Your task to perform on an android device: turn off priority inbox in the gmail app Image 0: 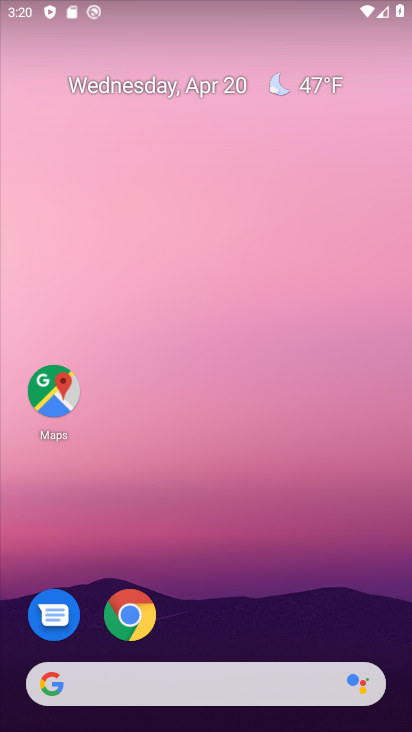
Step 0: drag from (219, 617) to (300, 71)
Your task to perform on an android device: turn off priority inbox in the gmail app Image 1: 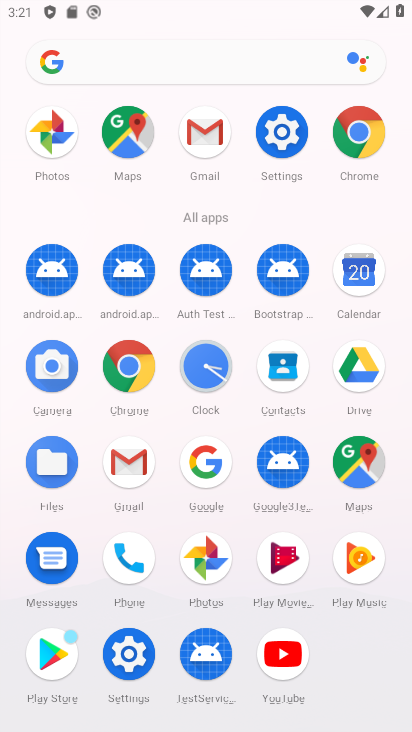
Step 1: click (204, 125)
Your task to perform on an android device: turn off priority inbox in the gmail app Image 2: 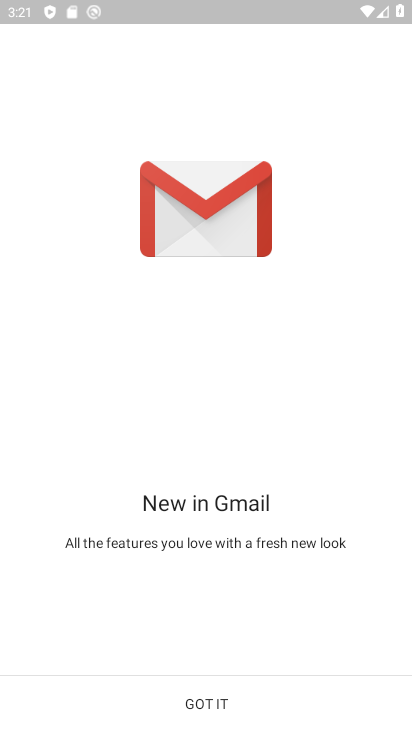
Step 2: click (213, 709)
Your task to perform on an android device: turn off priority inbox in the gmail app Image 3: 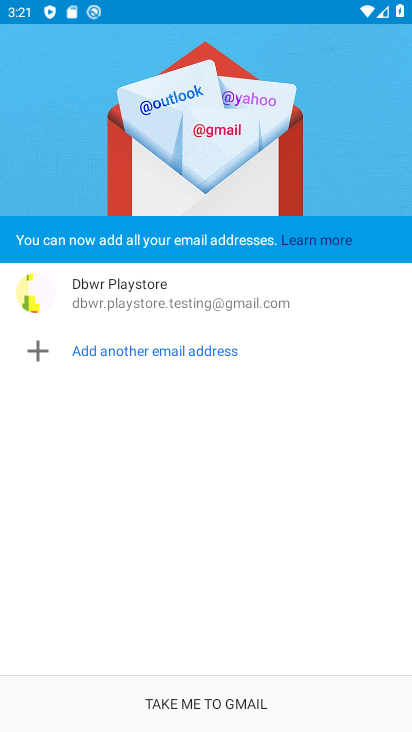
Step 3: click (213, 709)
Your task to perform on an android device: turn off priority inbox in the gmail app Image 4: 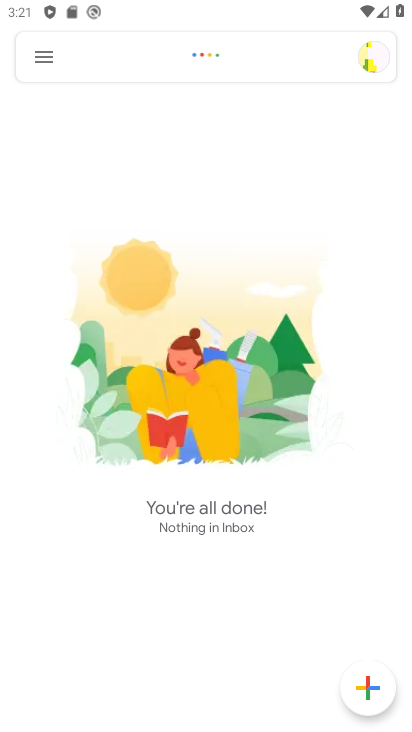
Step 4: click (43, 58)
Your task to perform on an android device: turn off priority inbox in the gmail app Image 5: 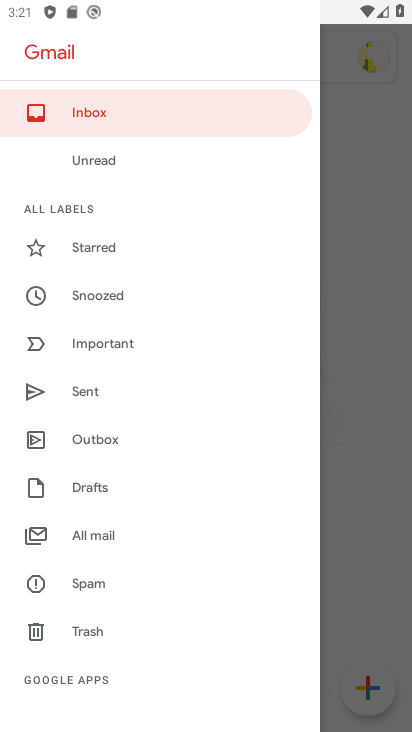
Step 5: drag from (138, 622) to (242, 135)
Your task to perform on an android device: turn off priority inbox in the gmail app Image 6: 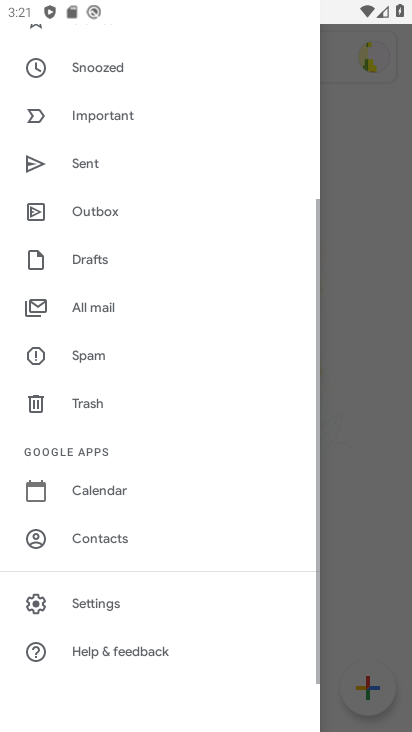
Step 6: click (174, 610)
Your task to perform on an android device: turn off priority inbox in the gmail app Image 7: 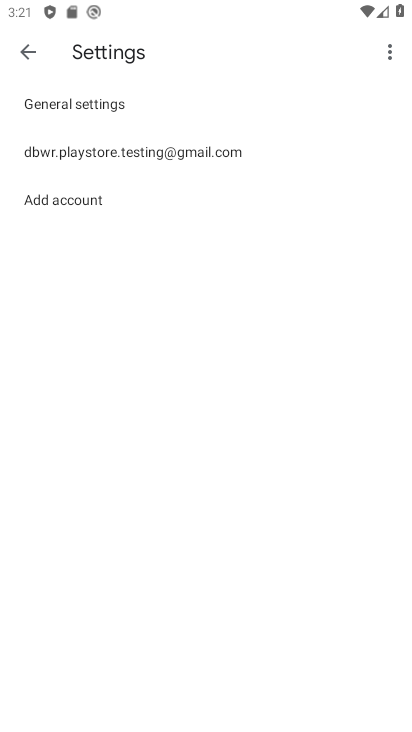
Step 7: click (199, 146)
Your task to perform on an android device: turn off priority inbox in the gmail app Image 8: 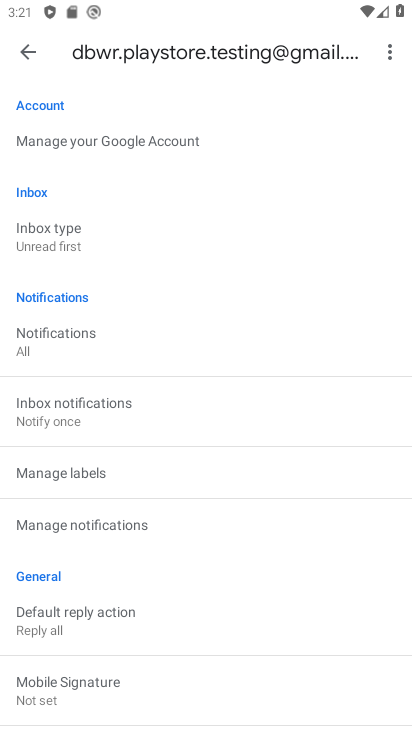
Step 8: click (106, 225)
Your task to perform on an android device: turn off priority inbox in the gmail app Image 9: 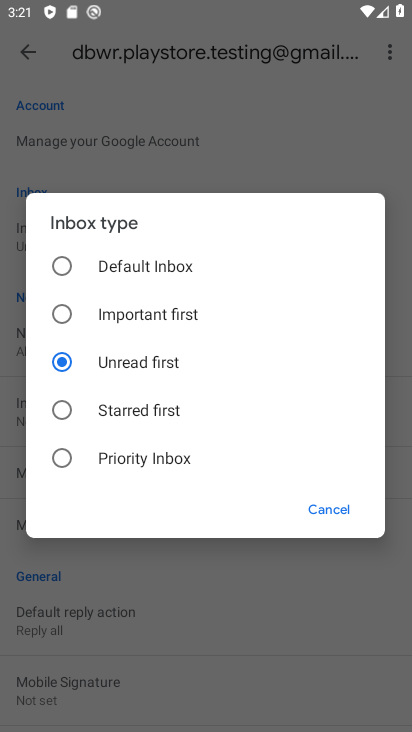
Step 9: task complete